Your task to perform on an android device: Show me productivity apps on the Play Store Image 0: 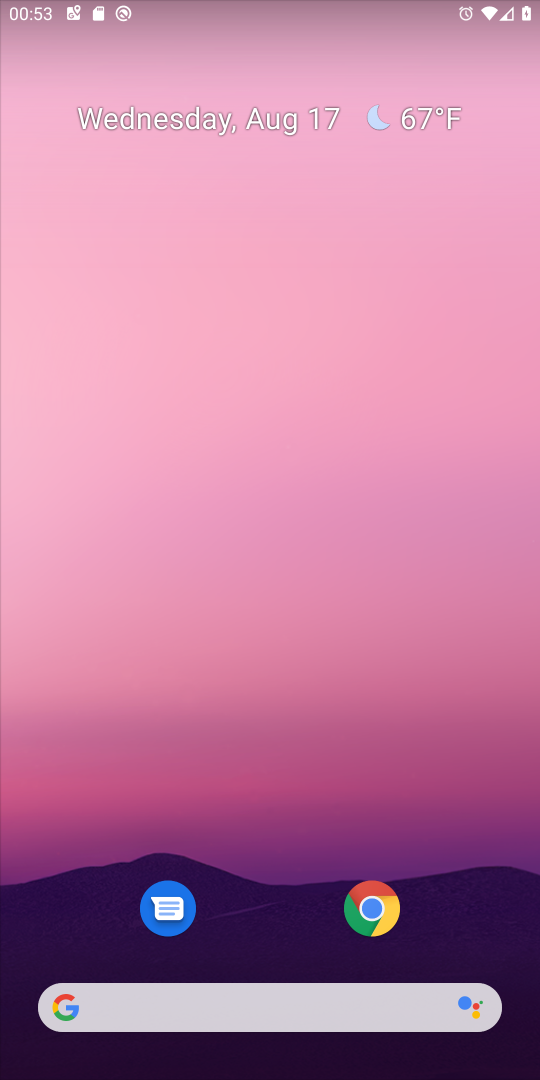
Step 0: drag from (288, 630) to (356, 147)
Your task to perform on an android device: Show me productivity apps on the Play Store Image 1: 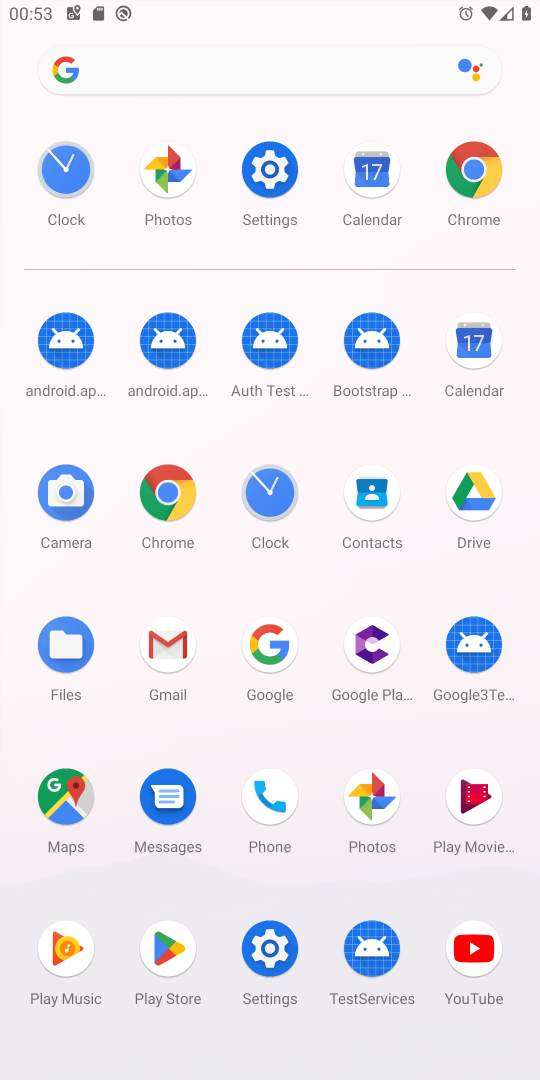
Step 1: click (196, 953)
Your task to perform on an android device: Show me productivity apps on the Play Store Image 2: 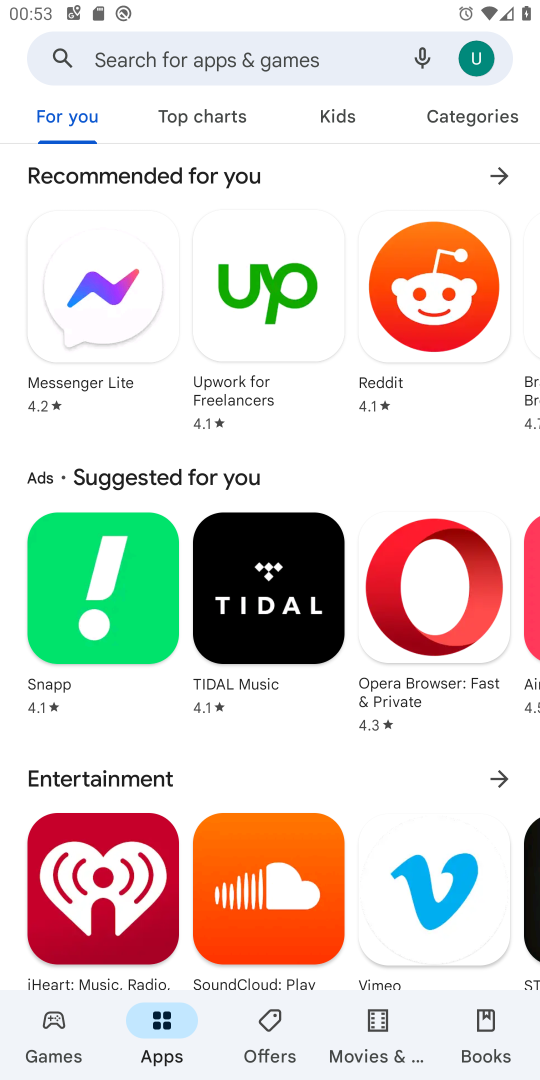
Step 2: click (436, 106)
Your task to perform on an android device: Show me productivity apps on the Play Store Image 3: 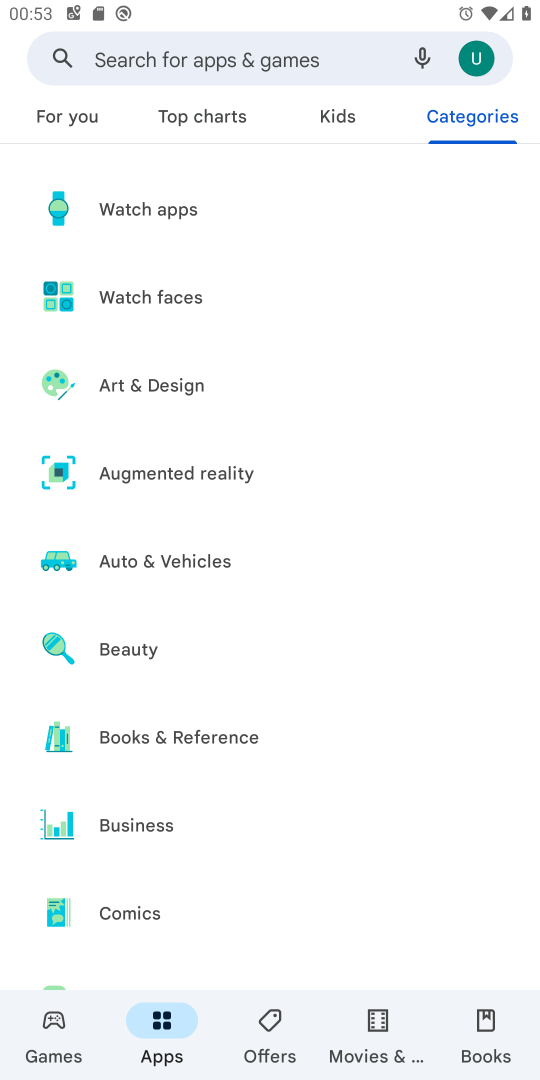
Step 3: drag from (206, 850) to (277, 306)
Your task to perform on an android device: Show me productivity apps on the Play Store Image 4: 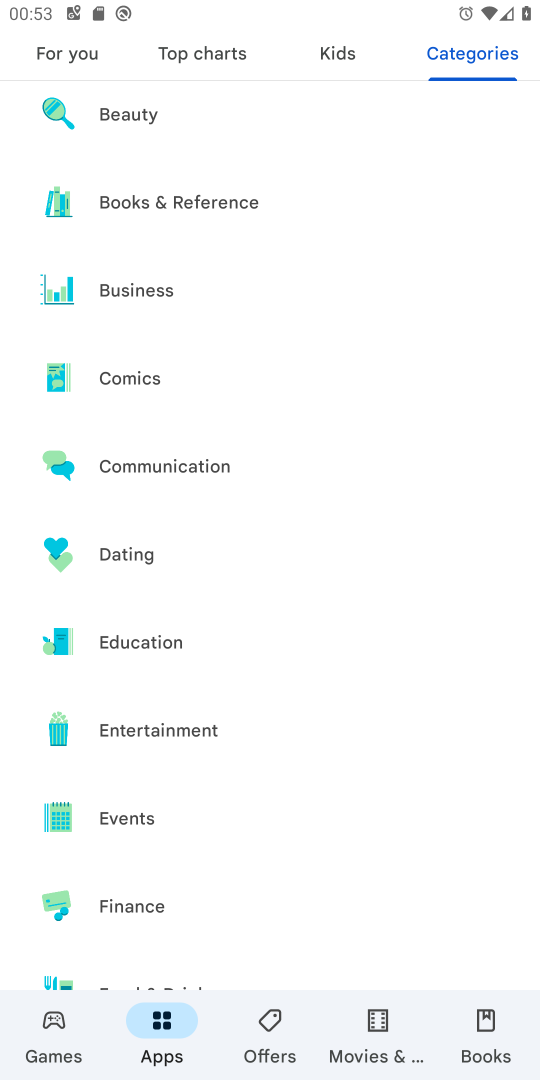
Step 4: drag from (224, 875) to (228, 455)
Your task to perform on an android device: Show me productivity apps on the Play Store Image 5: 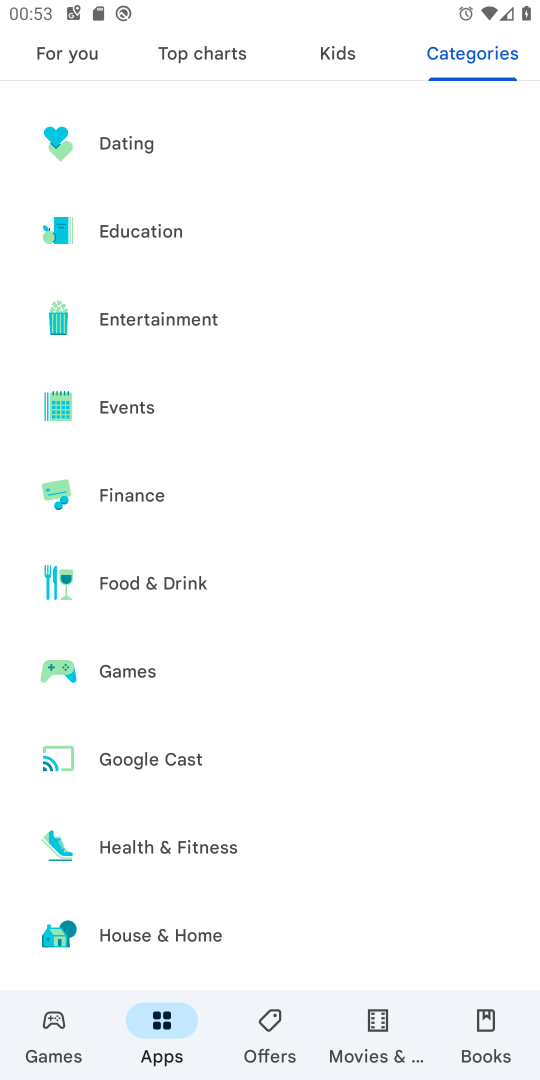
Step 5: drag from (234, 866) to (240, 371)
Your task to perform on an android device: Show me productivity apps on the Play Store Image 6: 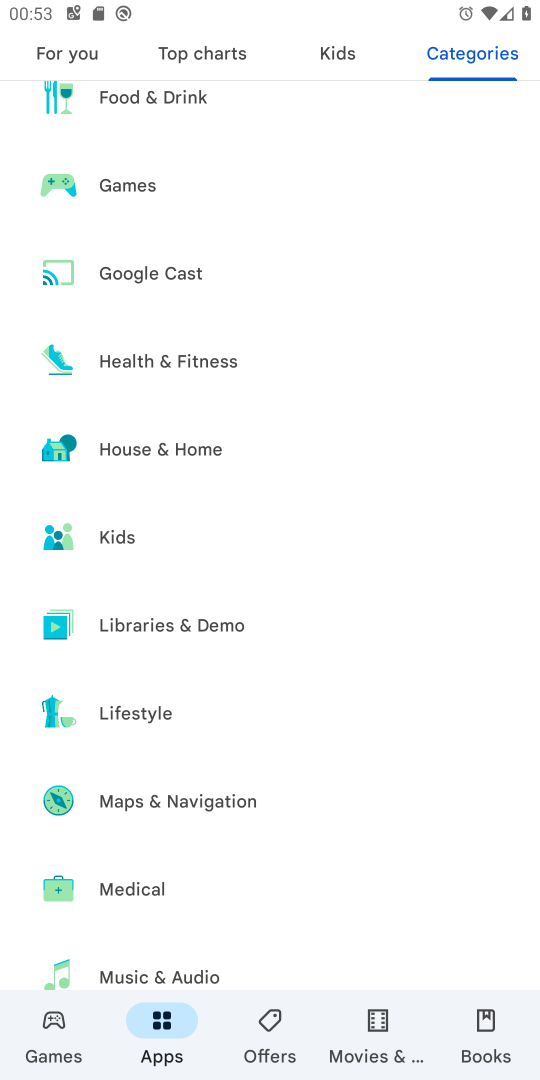
Step 6: drag from (216, 723) to (216, 319)
Your task to perform on an android device: Show me productivity apps on the Play Store Image 7: 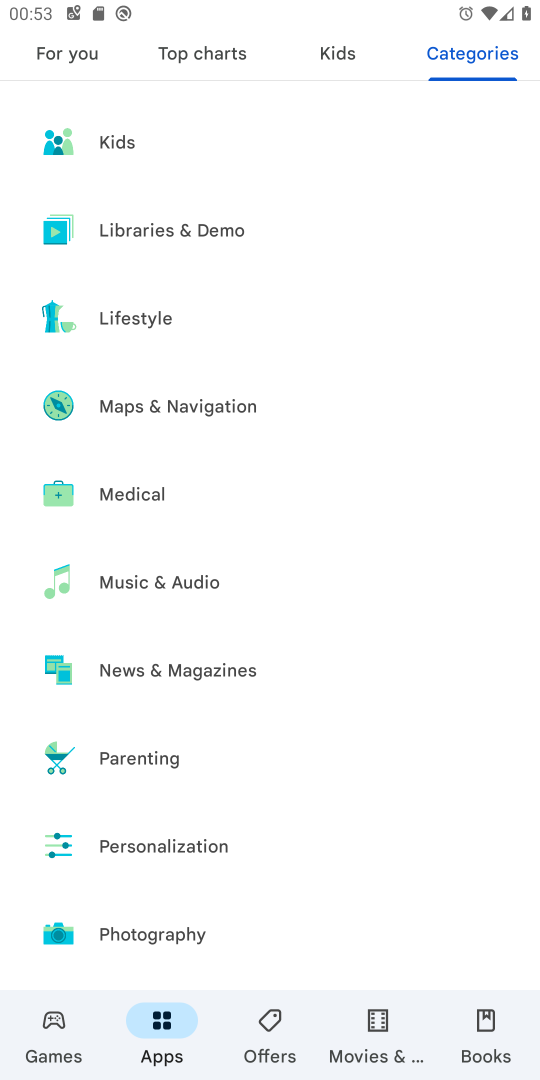
Step 7: drag from (217, 883) to (247, 356)
Your task to perform on an android device: Show me productivity apps on the Play Store Image 8: 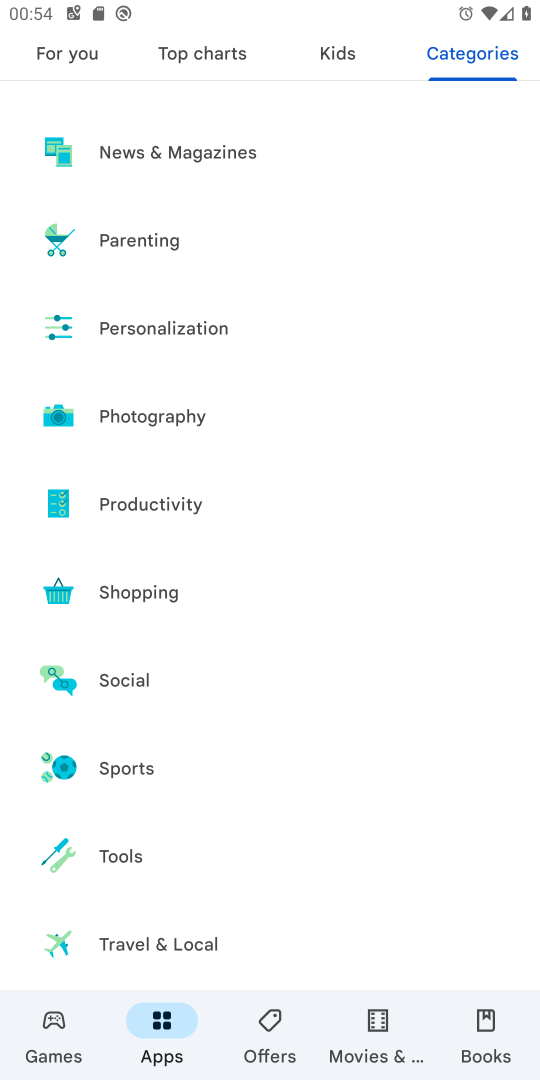
Step 8: click (160, 504)
Your task to perform on an android device: Show me productivity apps on the Play Store Image 9: 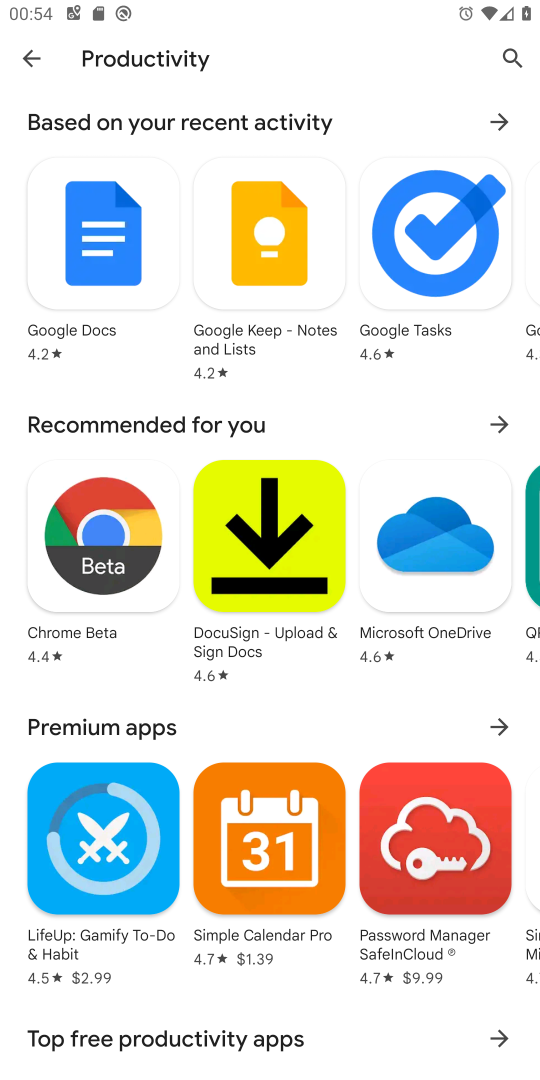
Step 9: task complete